Your task to perform on an android device: Open the web browser Image 0: 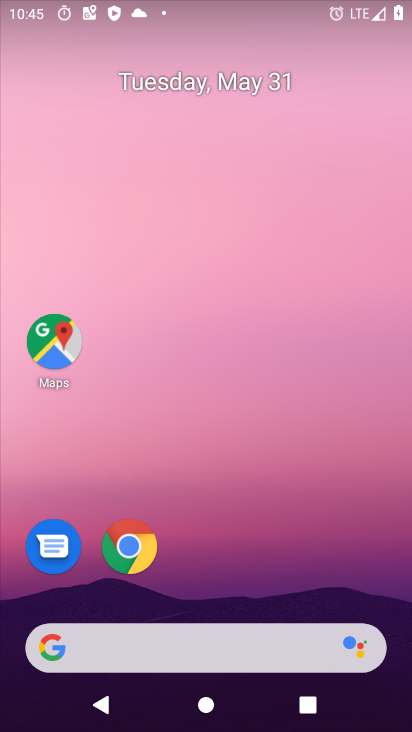
Step 0: drag from (251, 493) to (260, 153)
Your task to perform on an android device: Open the web browser Image 1: 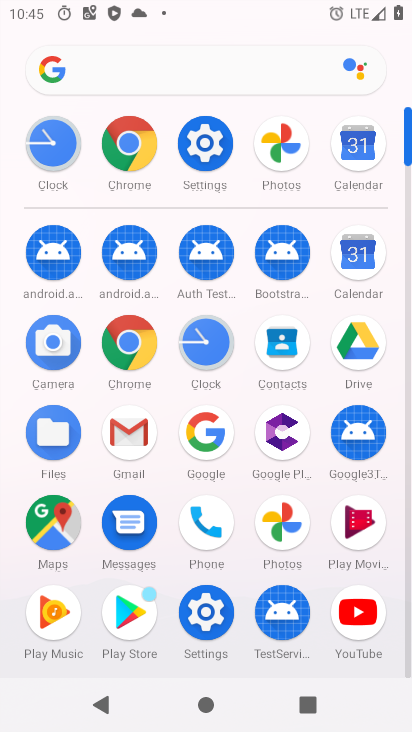
Step 1: click (125, 133)
Your task to perform on an android device: Open the web browser Image 2: 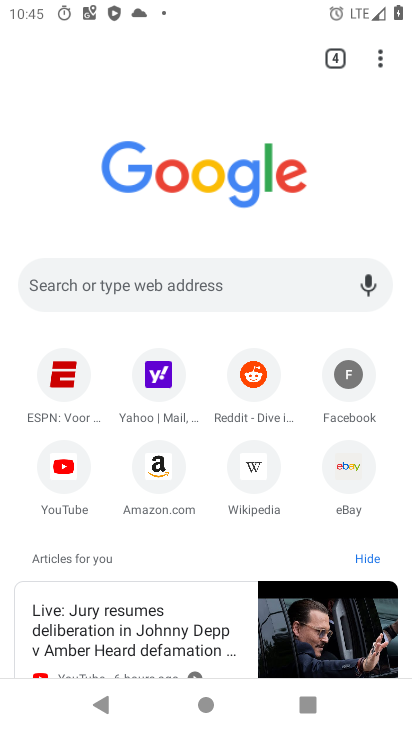
Step 2: task complete